Your task to perform on an android device: Go to ESPN.com Image 0: 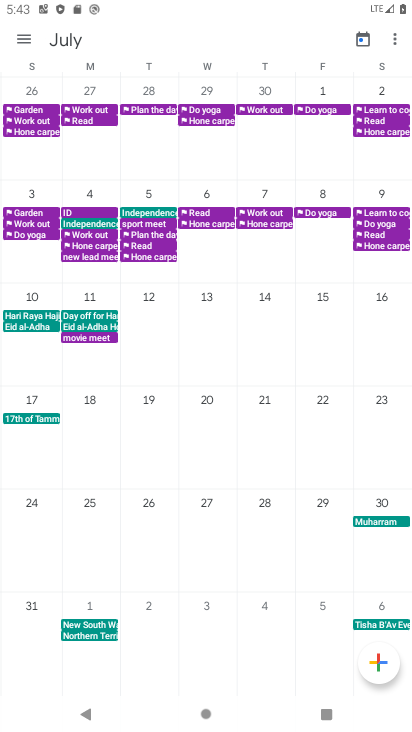
Step 0: press home button
Your task to perform on an android device: Go to ESPN.com Image 1: 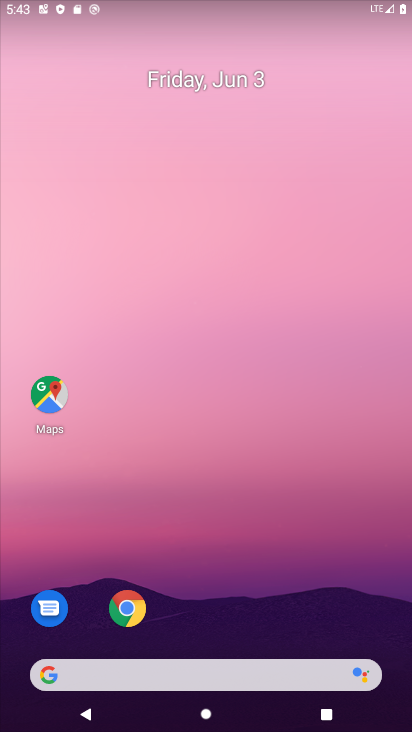
Step 1: click (128, 607)
Your task to perform on an android device: Go to ESPN.com Image 2: 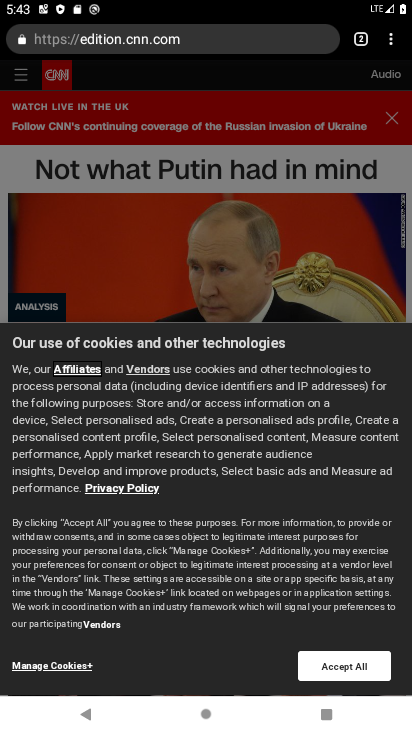
Step 2: click (360, 46)
Your task to perform on an android device: Go to ESPN.com Image 3: 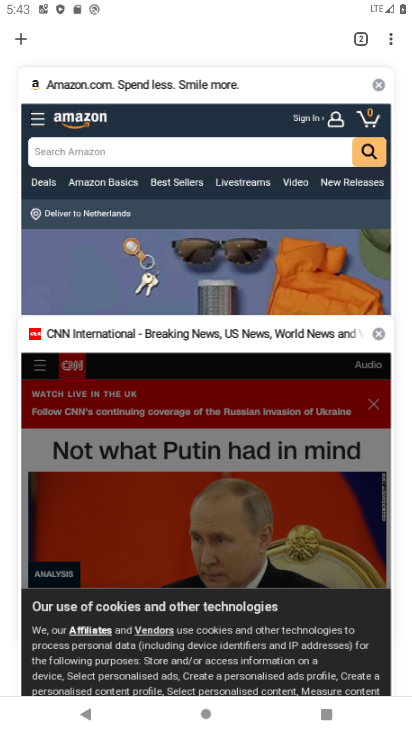
Step 3: click (28, 37)
Your task to perform on an android device: Go to ESPN.com Image 4: 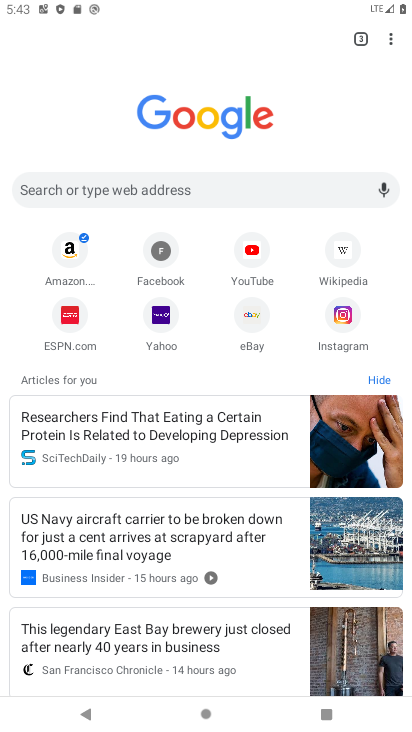
Step 4: click (72, 309)
Your task to perform on an android device: Go to ESPN.com Image 5: 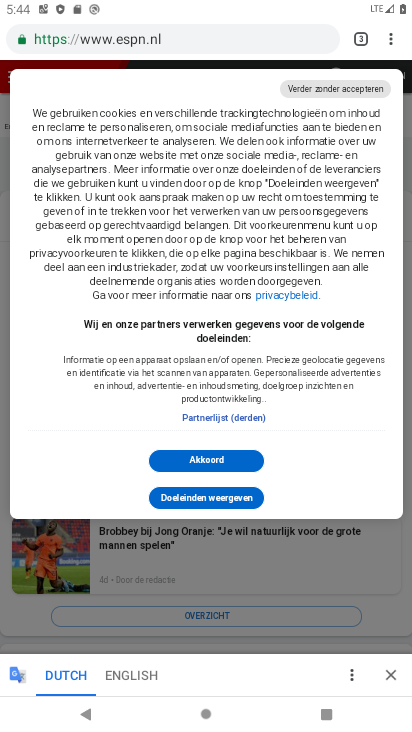
Step 5: task complete